Your task to perform on an android device: Go to Android settings Image 0: 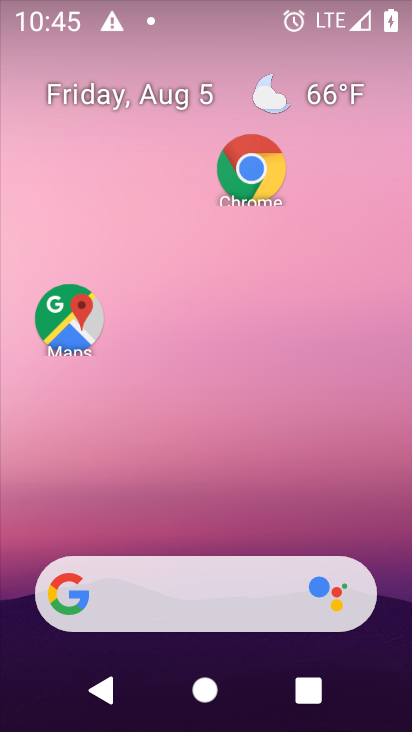
Step 0: drag from (207, 511) to (158, 59)
Your task to perform on an android device: Go to Android settings Image 1: 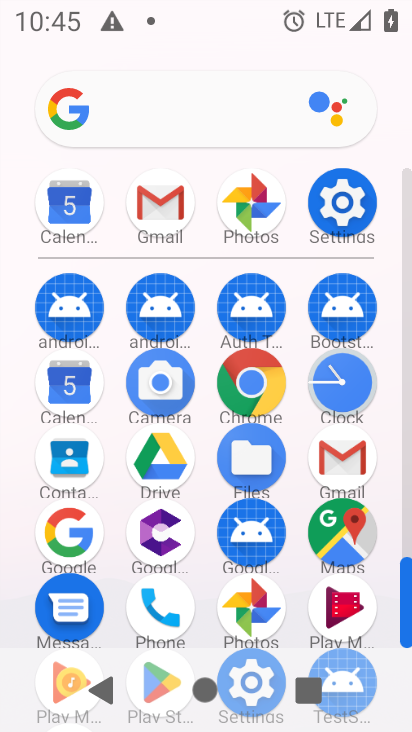
Step 1: click (331, 204)
Your task to perform on an android device: Go to Android settings Image 2: 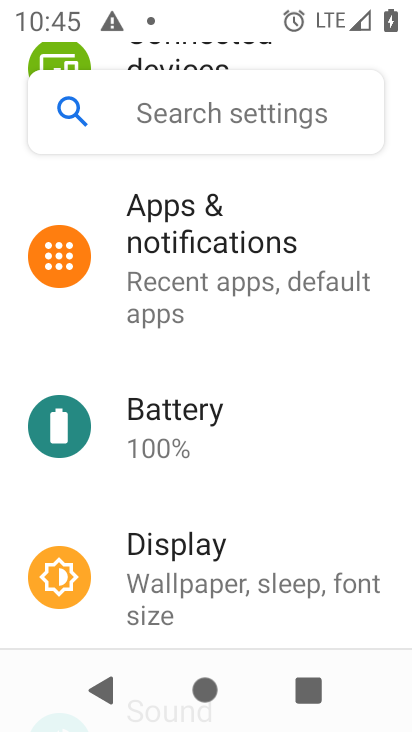
Step 2: task complete